Your task to perform on an android device: Open Reddit.com Image 0: 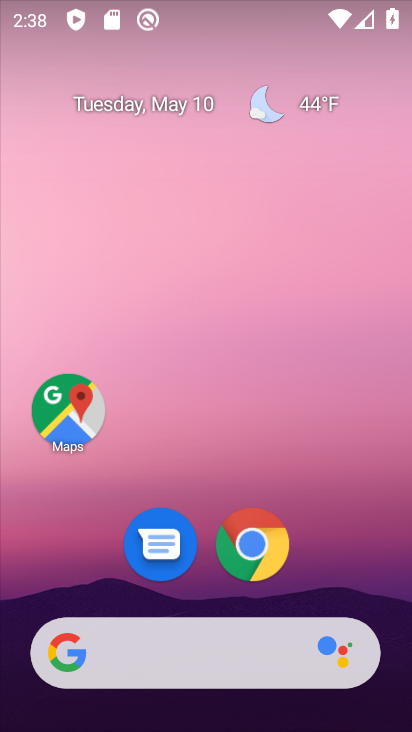
Step 0: click (214, 666)
Your task to perform on an android device: Open Reddit.com Image 1: 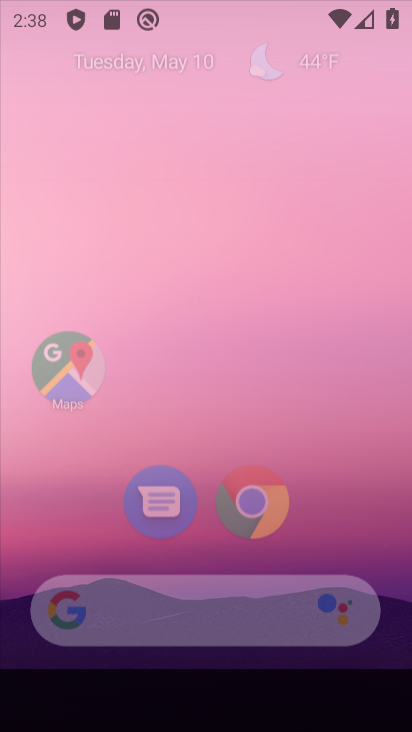
Step 1: type "Reddit.com"
Your task to perform on an android device: Open Reddit.com Image 2: 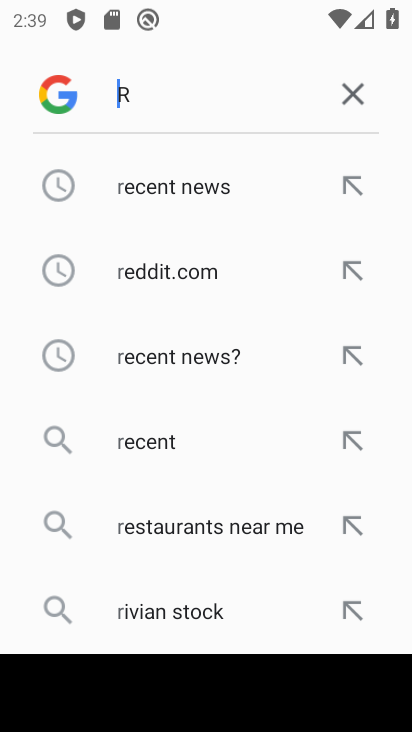
Step 2: click (158, 86)
Your task to perform on an android device: Open Reddit.com Image 3: 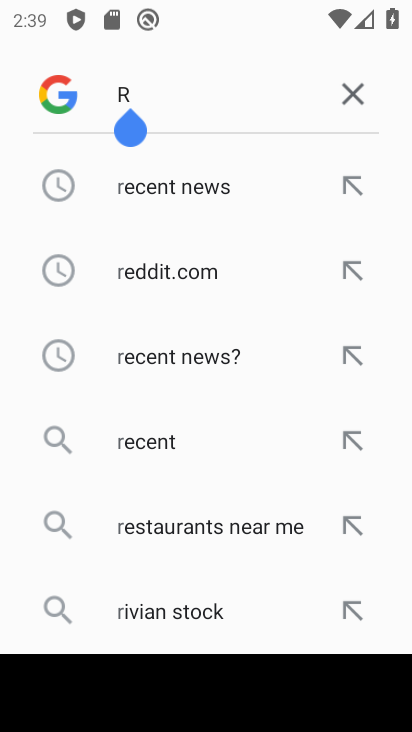
Step 3: click (191, 274)
Your task to perform on an android device: Open Reddit.com Image 4: 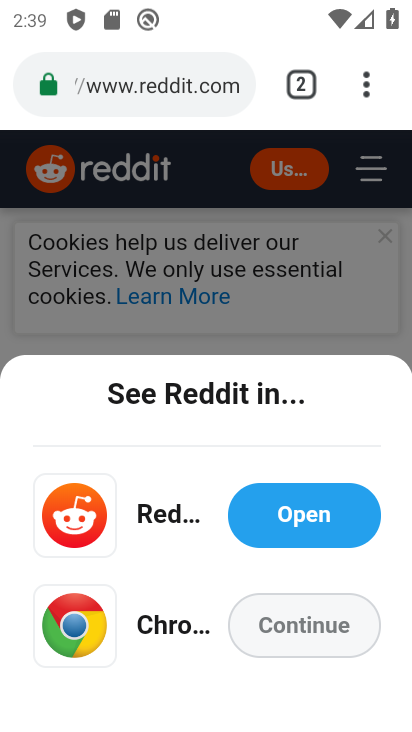
Step 4: click (320, 621)
Your task to perform on an android device: Open Reddit.com Image 5: 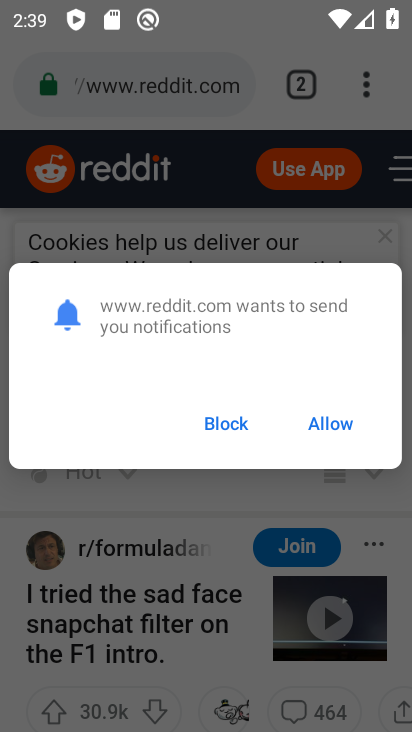
Step 5: click (338, 442)
Your task to perform on an android device: Open Reddit.com Image 6: 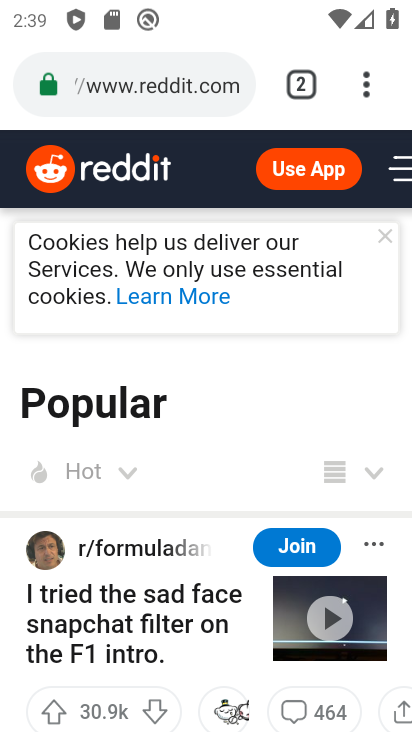
Step 6: task complete